Your task to perform on an android device: Toggle the flashlight Image 0: 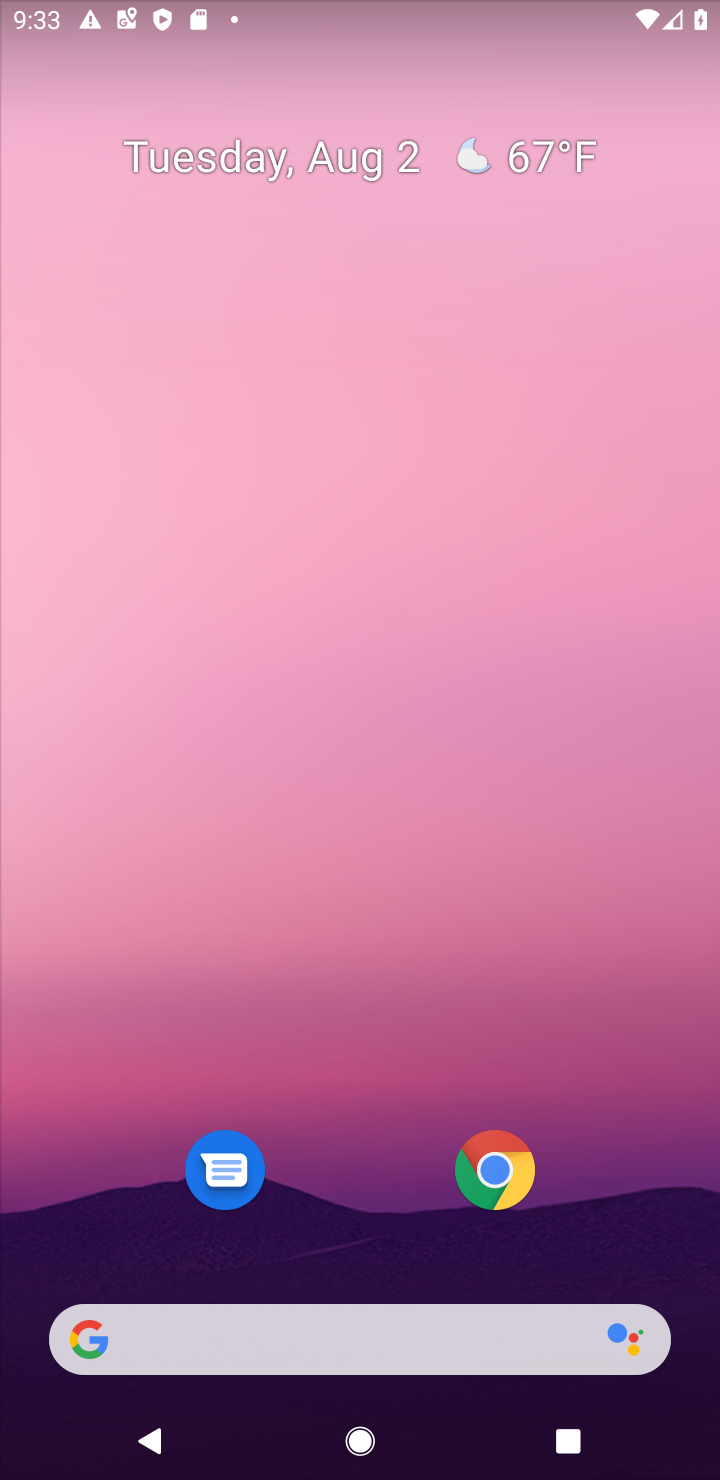
Step 0: drag from (382, 1128) to (364, 179)
Your task to perform on an android device: Toggle the flashlight Image 1: 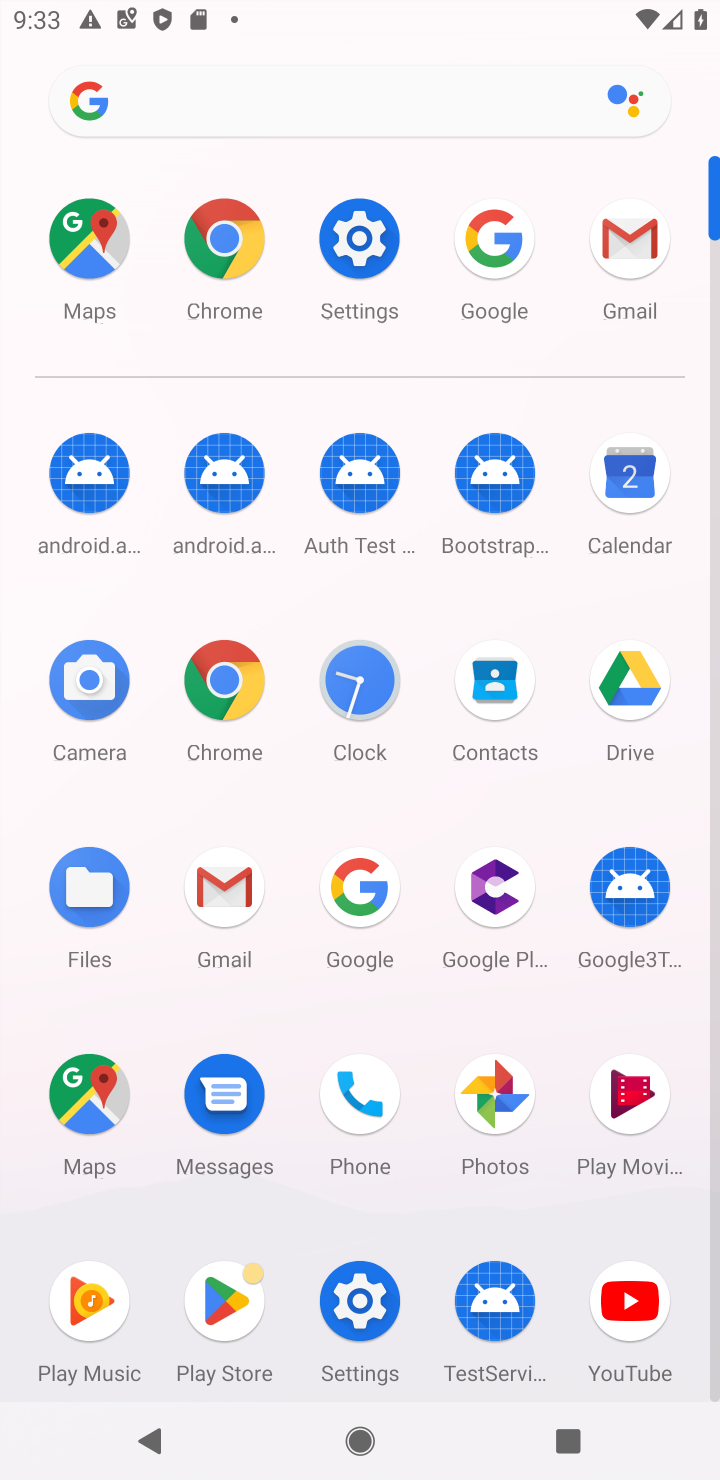
Step 1: task complete